Your task to perform on an android device: Go to sound settings Image 0: 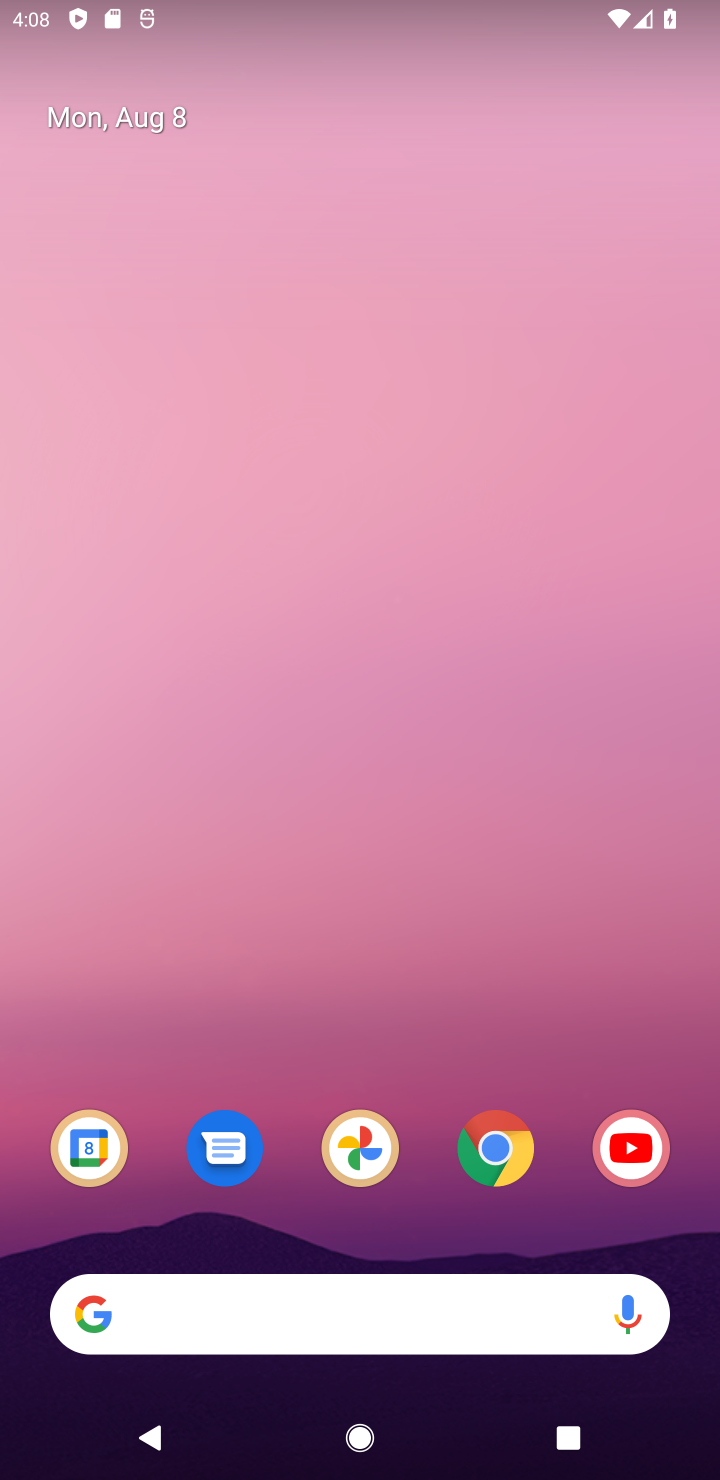
Step 0: drag from (195, 1258) to (0, 643)
Your task to perform on an android device: Go to sound settings Image 1: 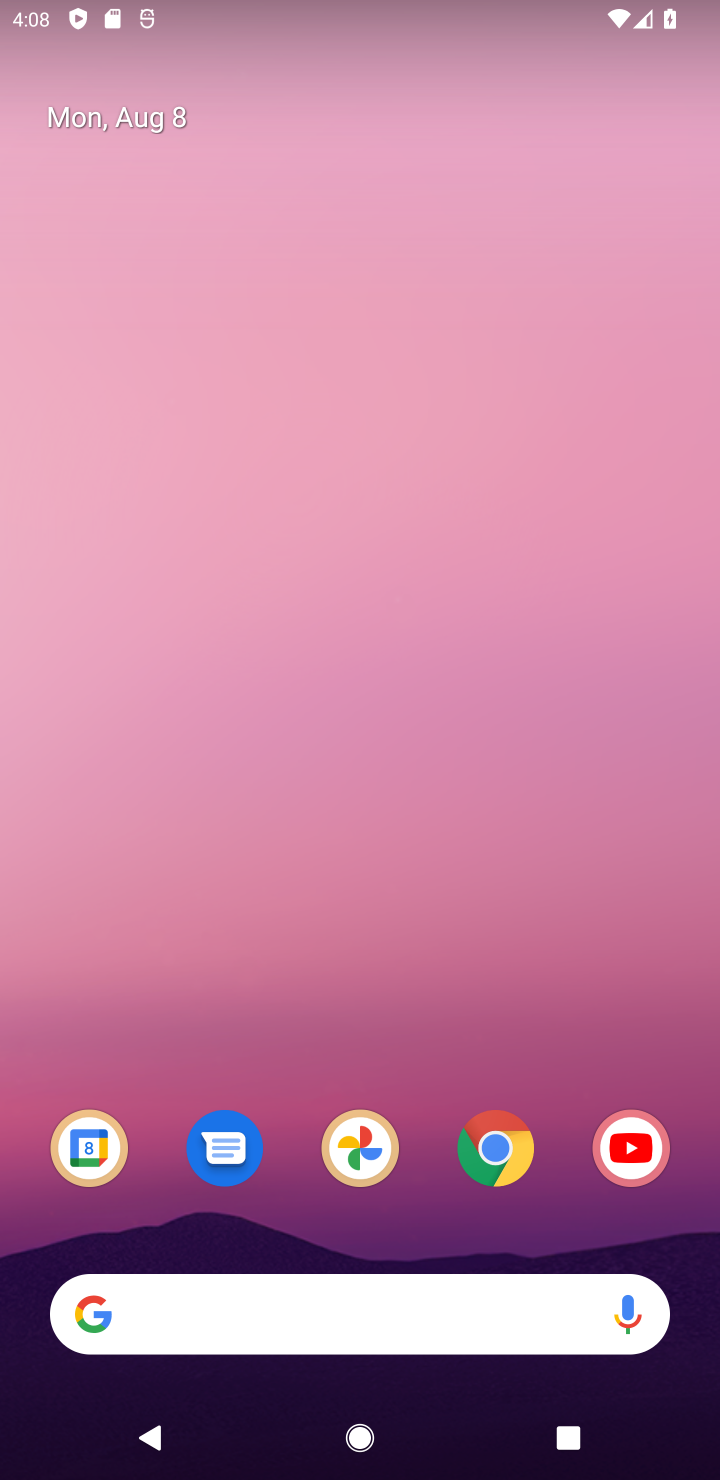
Step 1: drag from (301, 992) to (123, 82)
Your task to perform on an android device: Go to sound settings Image 2: 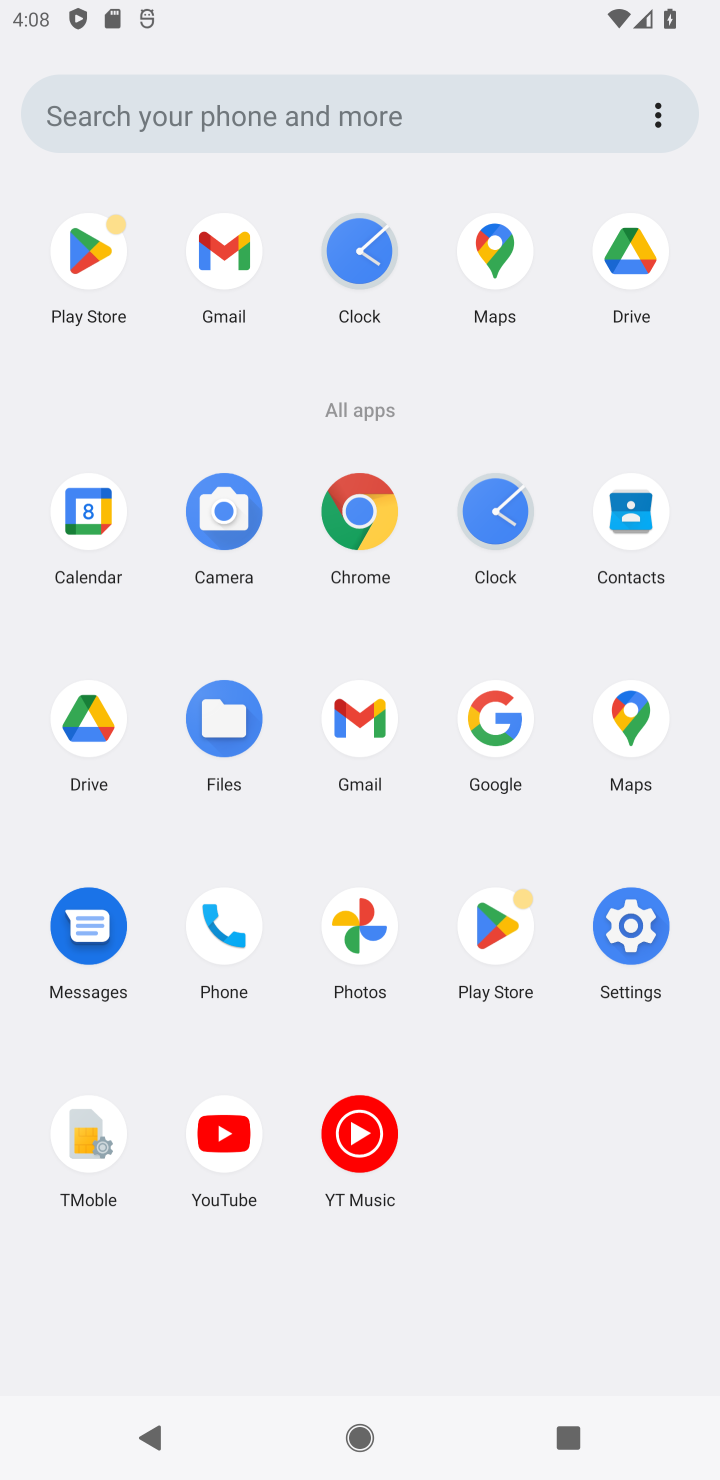
Step 2: click (627, 938)
Your task to perform on an android device: Go to sound settings Image 3: 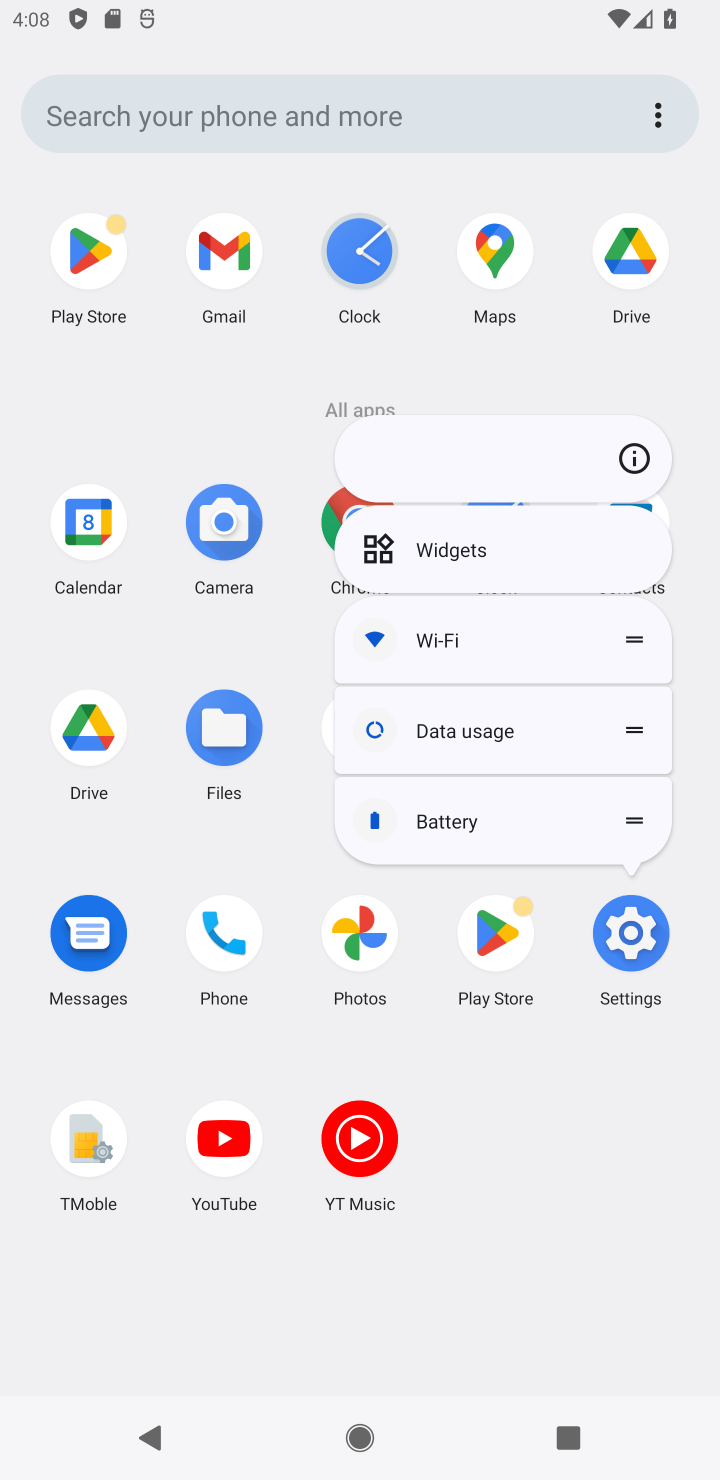
Step 3: click (625, 1003)
Your task to perform on an android device: Go to sound settings Image 4: 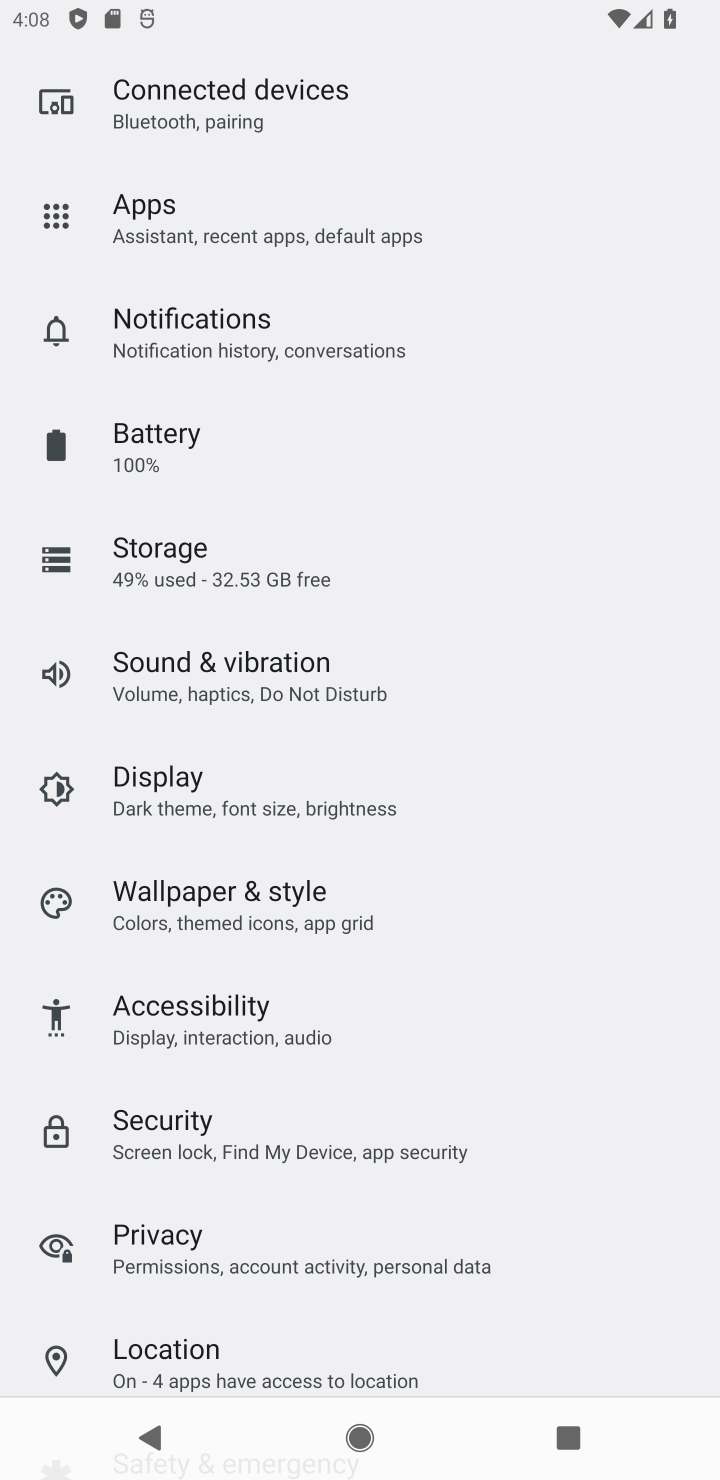
Step 4: click (646, 946)
Your task to perform on an android device: Go to sound settings Image 5: 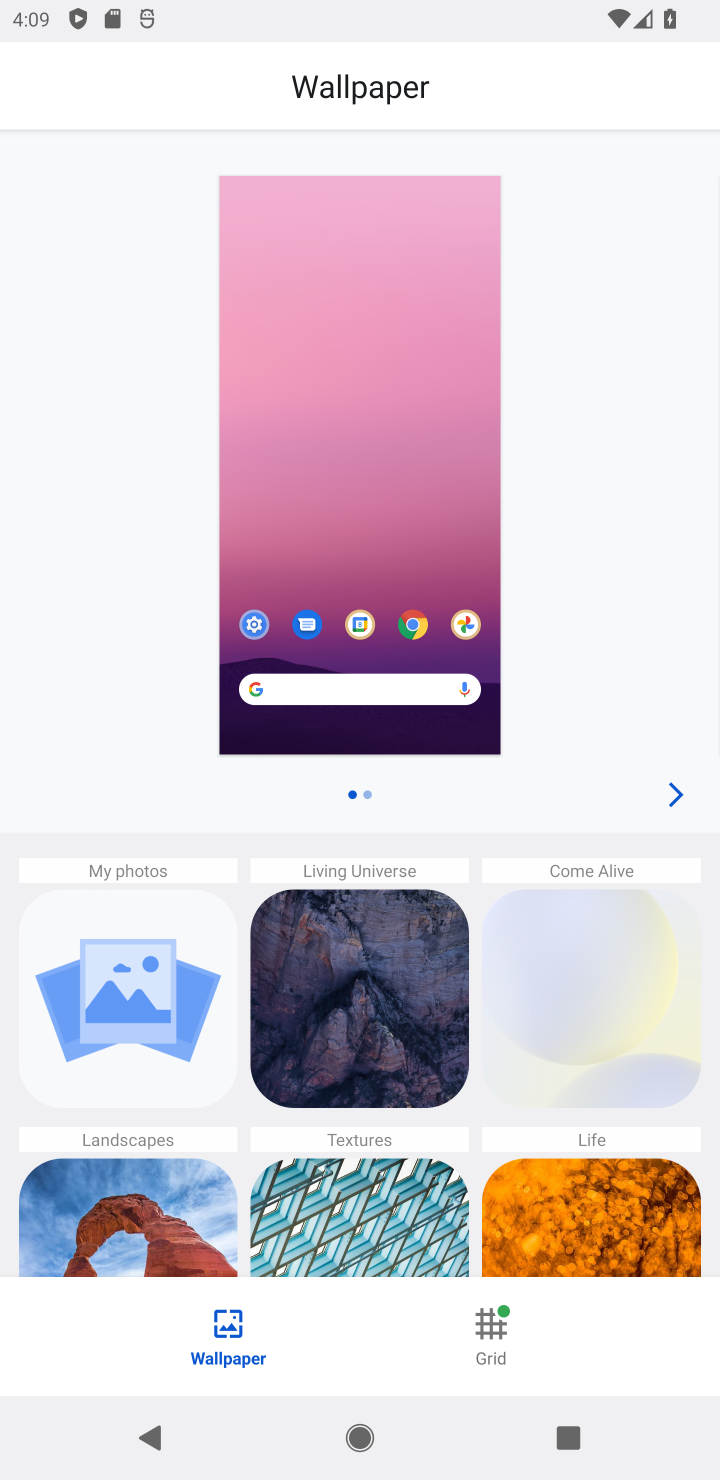
Step 5: press back button
Your task to perform on an android device: Go to sound settings Image 6: 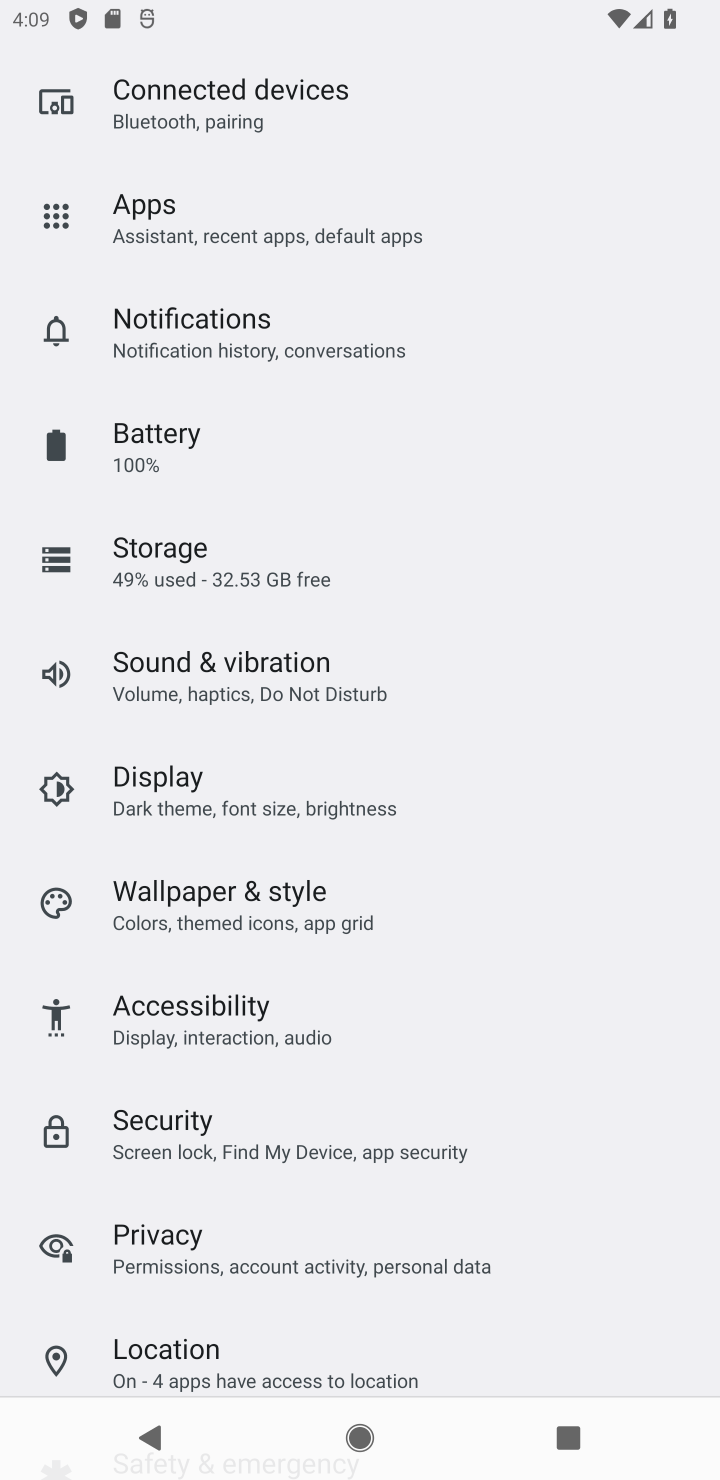
Step 6: click (162, 654)
Your task to perform on an android device: Go to sound settings Image 7: 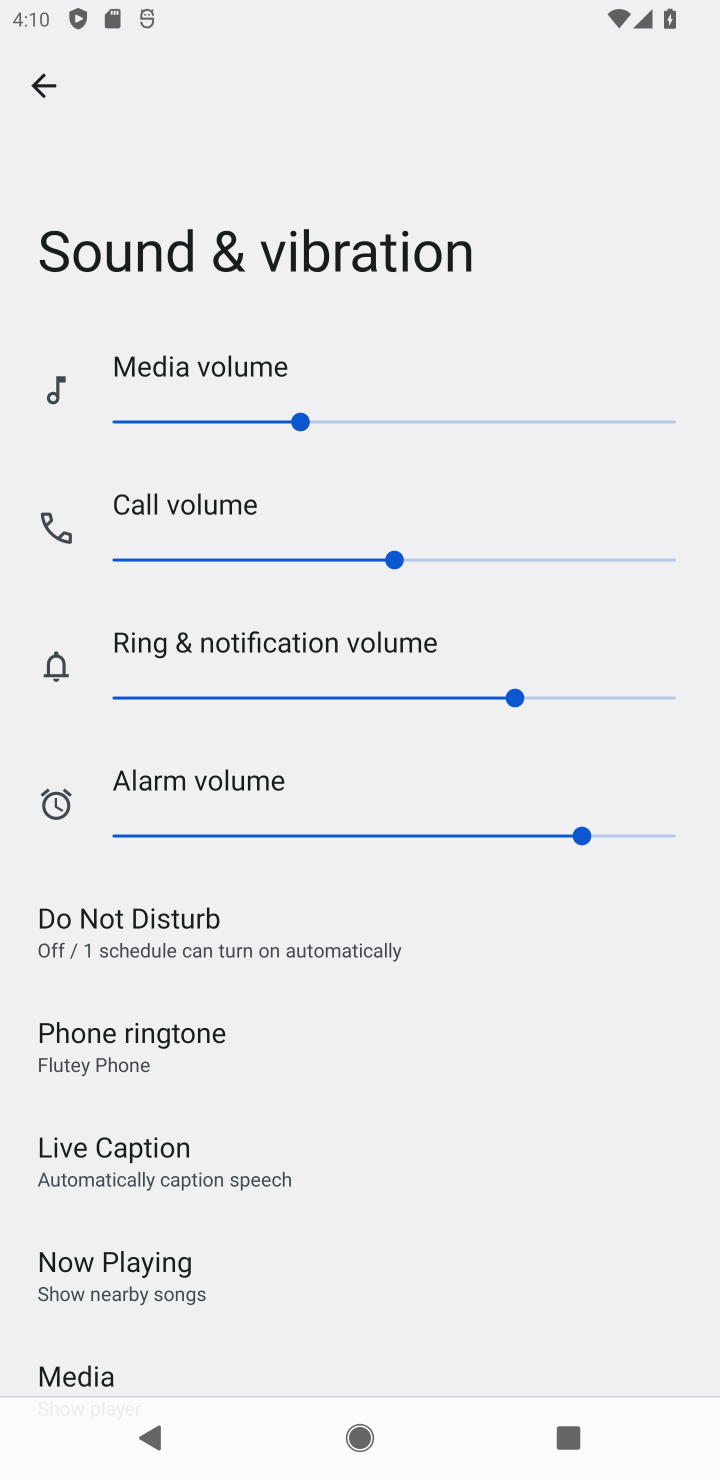
Step 7: task complete